Your task to perform on an android device: allow cookies in the chrome app Image 0: 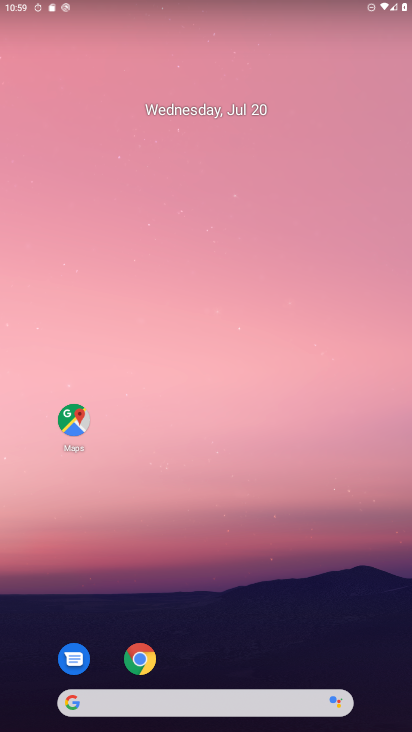
Step 0: drag from (261, 570) to (287, 271)
Your task to perform on an android device: allow cookies in the chrome app Image 1: 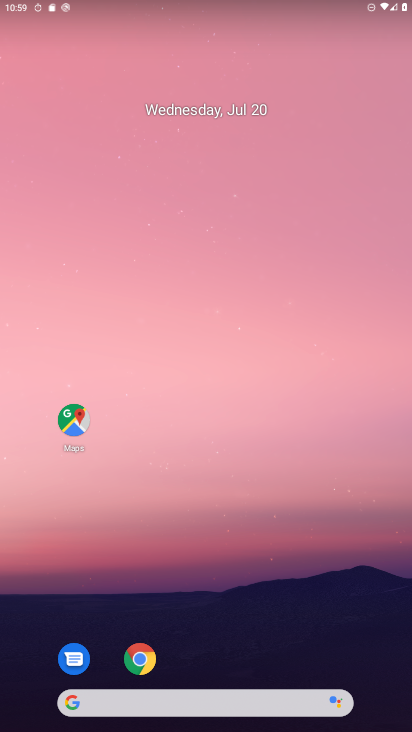
Step 1: drag from (269, 608) to (323, 97)
Your task to perform on an android device: allow cookies in the chrome app Image 2: 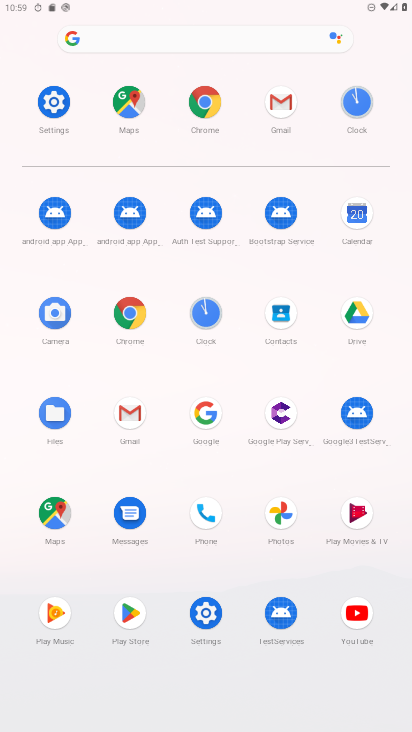
Step 2: click (133, 307)
Your task to perform on an android device: allow cookies in the chrome app Image 3: 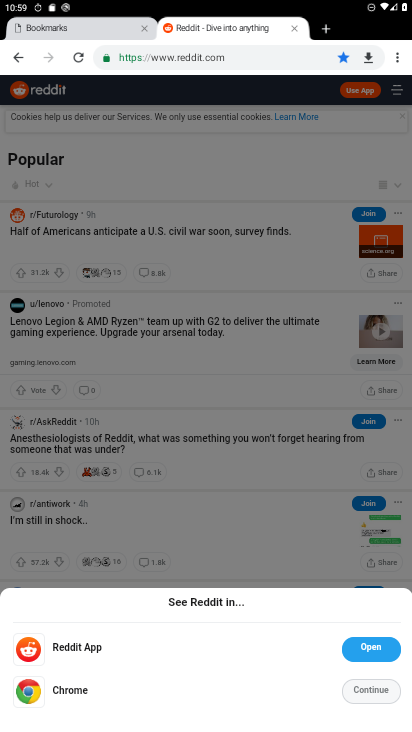
Step 3: drag from (406, 50) to (276, 385)
Your task to perform on an android device: allow cookies in the chrome app Image 4: 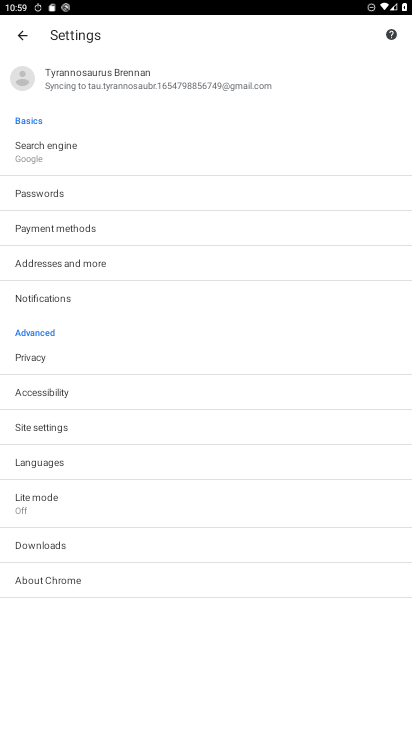
Step 4: click (72, 428)
Your task to perform on an android device: allow cookies in the chrome app Image 5: 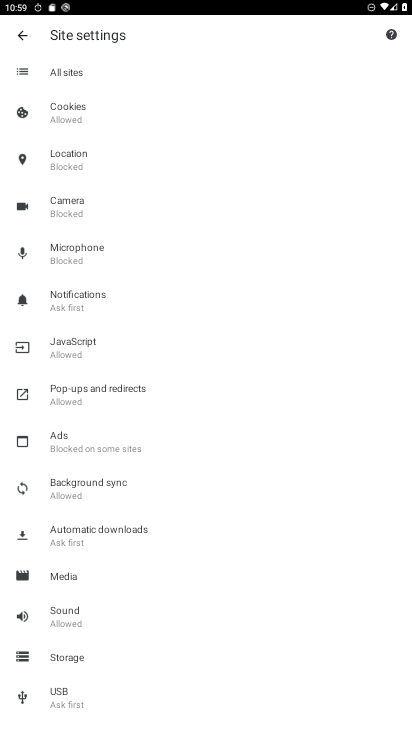
Step 5: click (79, 108)
Your task to perform on an android device: allow cookies in the chrome app Image 6: 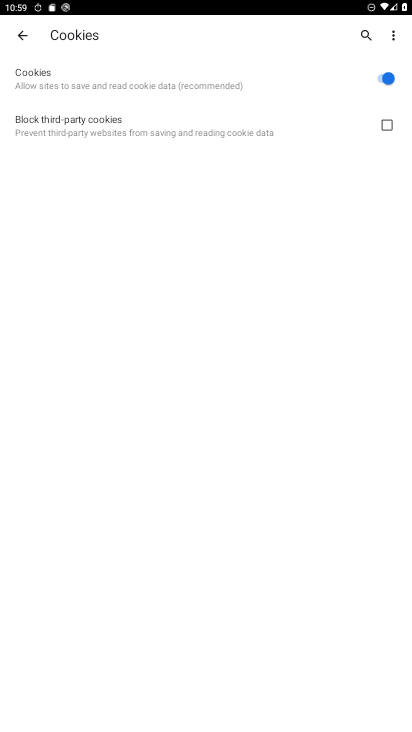
Step 6: task complete